Your task to perform on an android device: Search for seafood restaurants on Google Maps Image 0: 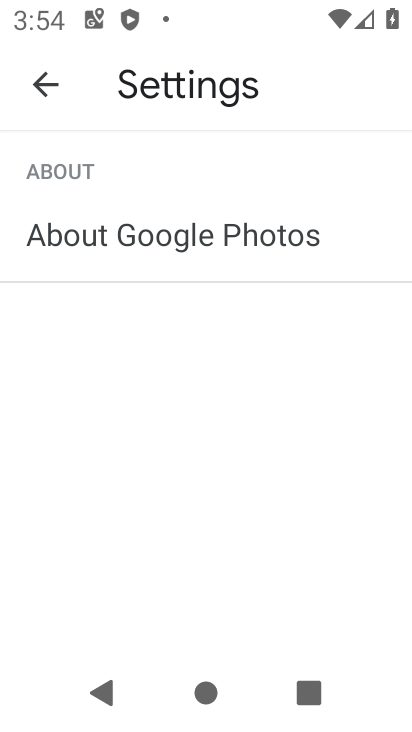
Step 0: press home button
Your task to perform on an android device: Search for seafood restaurants on Google Maps Image 1: 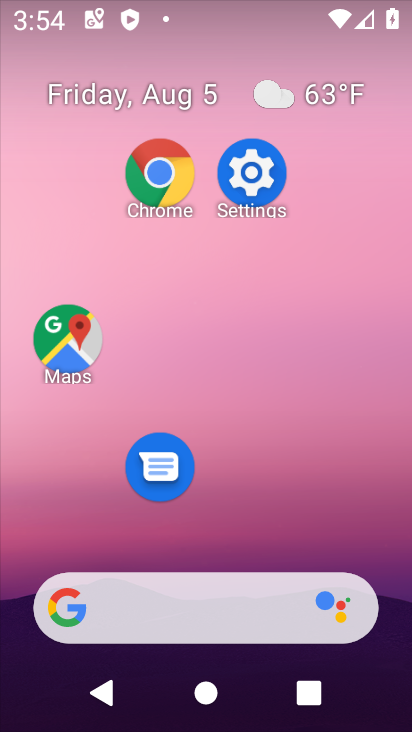
Step 1: drag from (292, 495) to (329, 719)
Your task to perform on an android device: Search for seafood restaurants on Google Maps Image 2: 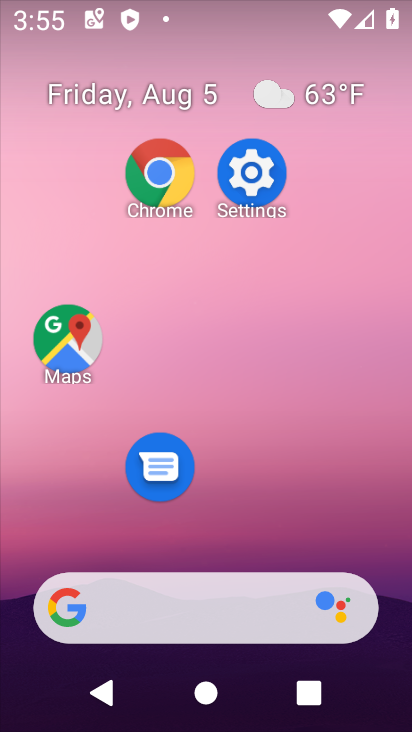
Step 2: drag from (262, 499) to (277, 18)
Your task to perform on an android device: Search for seafood restaurants on Google Maps Image 3: 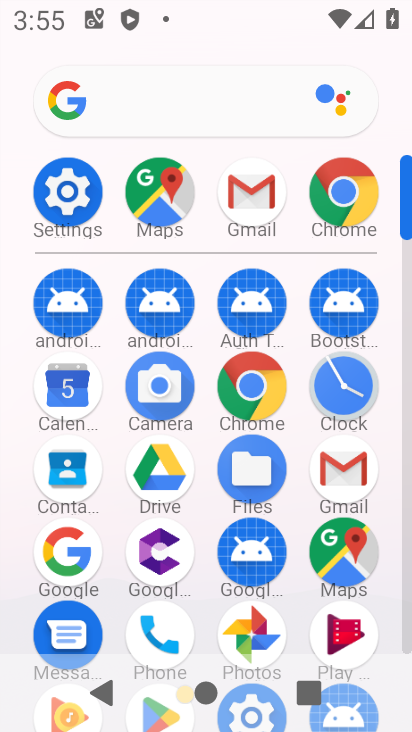
Step 3: click (342, 533)
Your task to perform on an android device: Search for seafood restaurants on Google Maps Image 4: 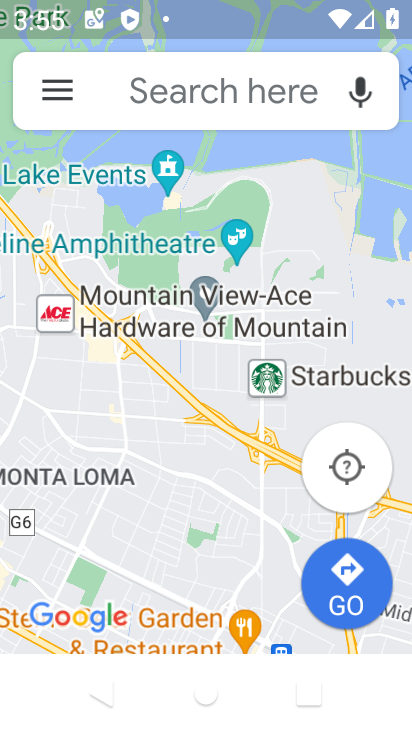
Step 4: click (160, 82)
Your task to perform on an android device: Search for seafood restaurants on Google Maps Image 5: 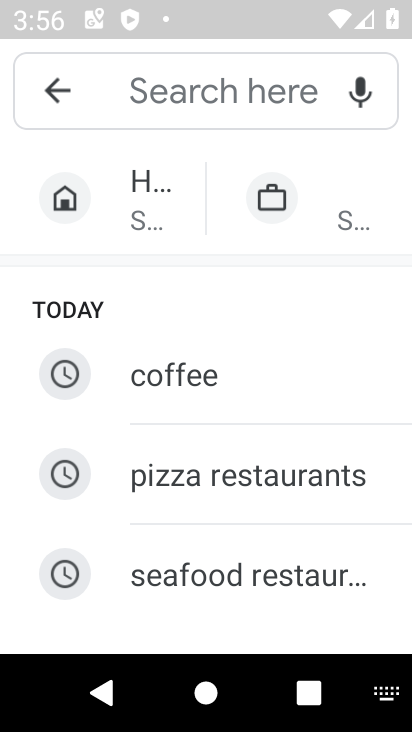
Step 5: type " seafood restaurants"
Your task to perform on an android device: Search for seafood restaurants on Google Maps Image 6: 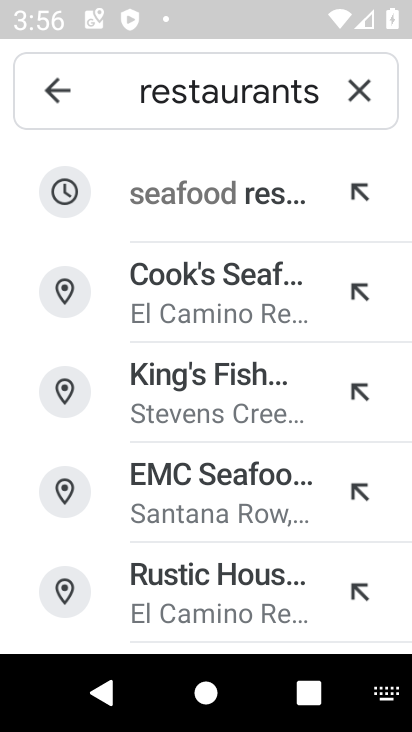
Step 6: click (195, 208)
Your task to perform on an android device: Search for seafood restaurants on Google Maps Image 7: 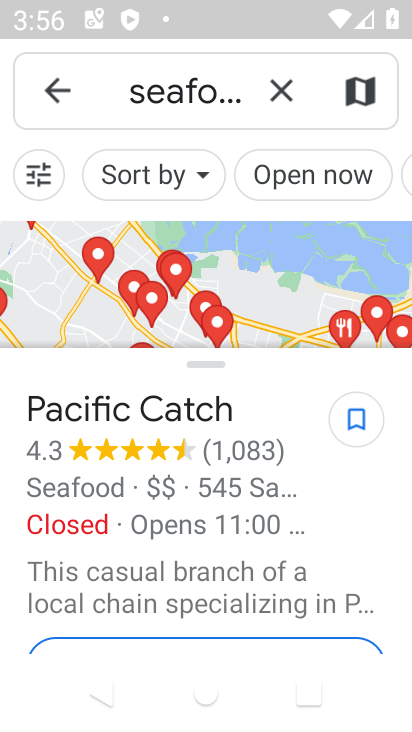
Step 7: task complete